Your task to perform on an android device: clear all cookies in the chrome app Image 0: 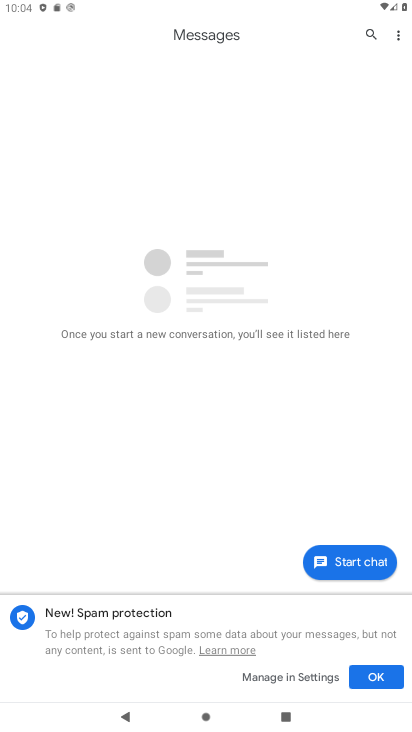
Step 0: drag from (201, 530) to (231, 299)
Your task to perform on an android device: clear all cookies in the chrome app Image 1: 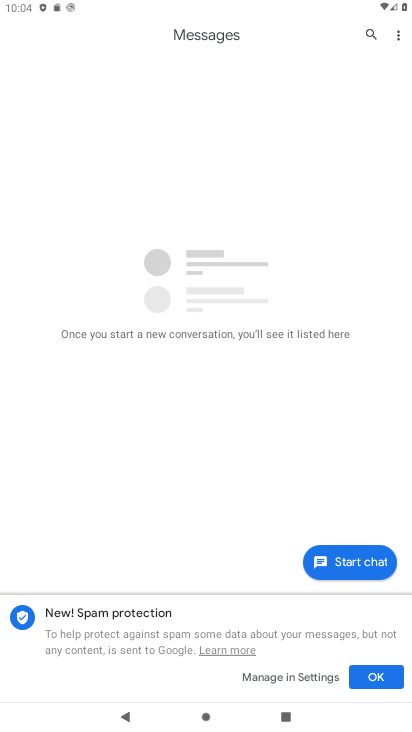
Step 1: drag from (230, 529) to (242, 321)
Your task to perform on an android device: clear all cookies in the chrome app Image 2: 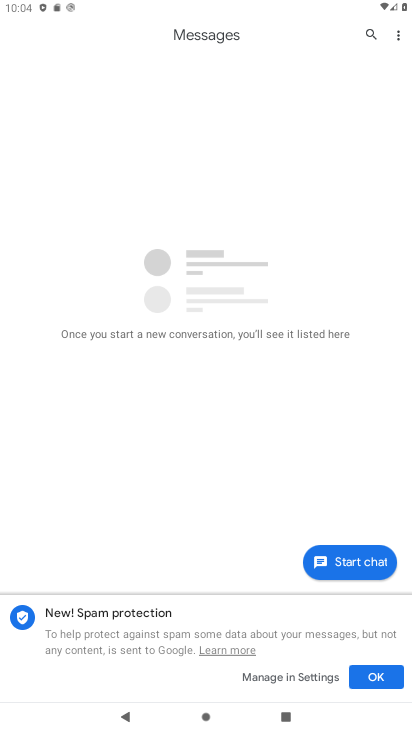
Step 2: press home button
Your task to perform on an android device: clear all cookies in the chrome app Image 3: 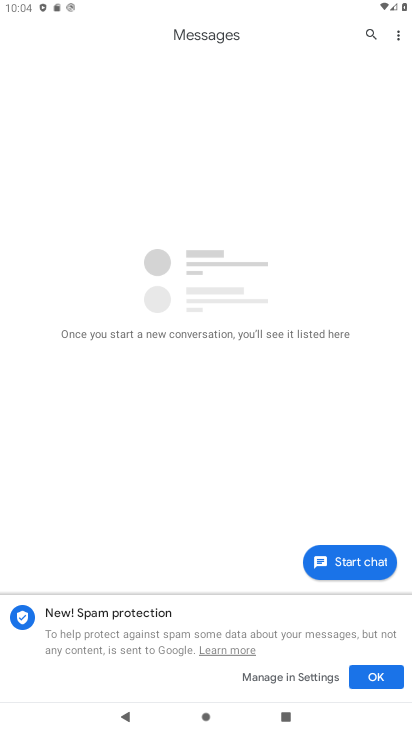
Step 3: press home button
Your task to perform on an android device: clear all cookies in the chrome app Image 4: 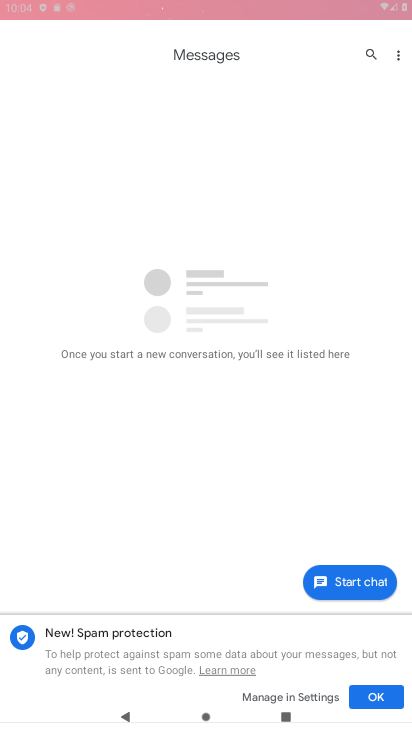
Step 4: click (387, 145)
Your task to perform on an android device: clear all cookies in the chrome app Image 5: 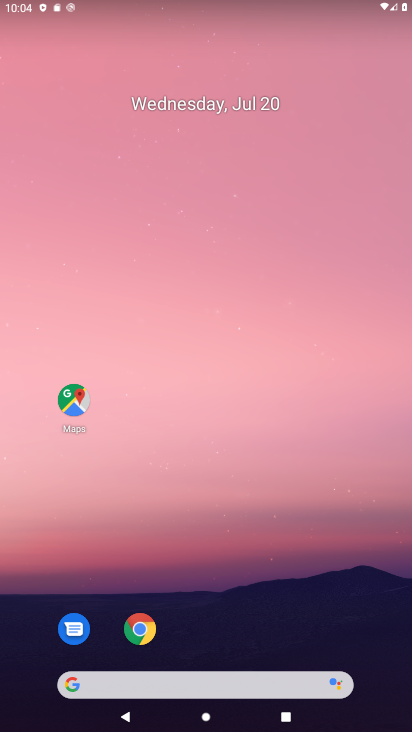
Step 5: drag from (199, 636) to (299, 232)
Your task to perform on an android device: clear all cookies in the chrome app Image 6: 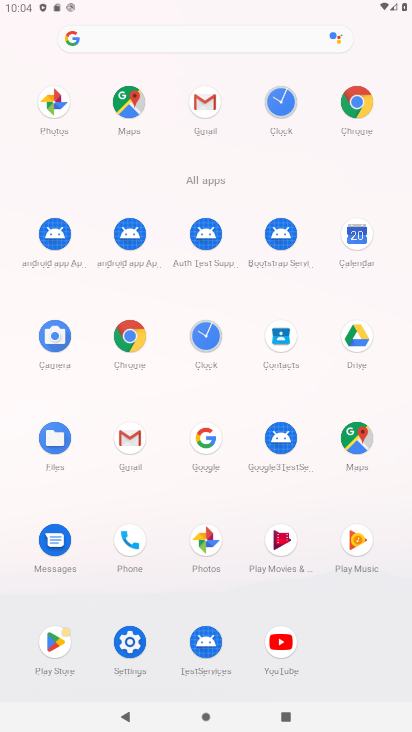
Step 6: click (135, 339)
Your task to perform on an android device: clear all cookies in the chrome app Image 7: 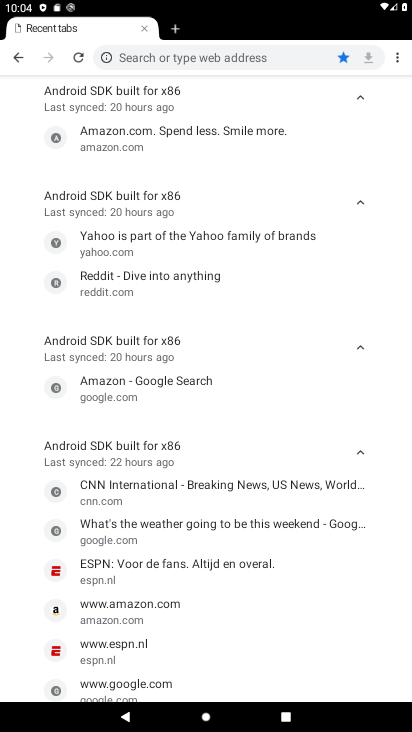
Step 7: drag from (233, 164) to (207, 348)
Your task to perform on an android device: clear all cookies in the chrome app Image 8: 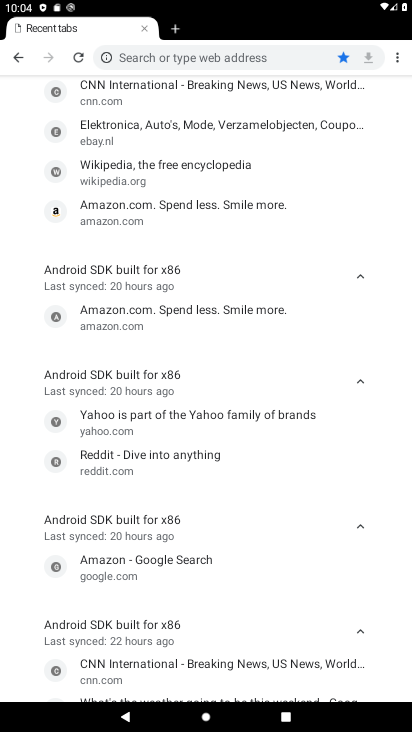
Step 8: drag from (232, 257) to (235, 620)
Your task to perform on an android device: clear all cookies in the chrome app Image 9: 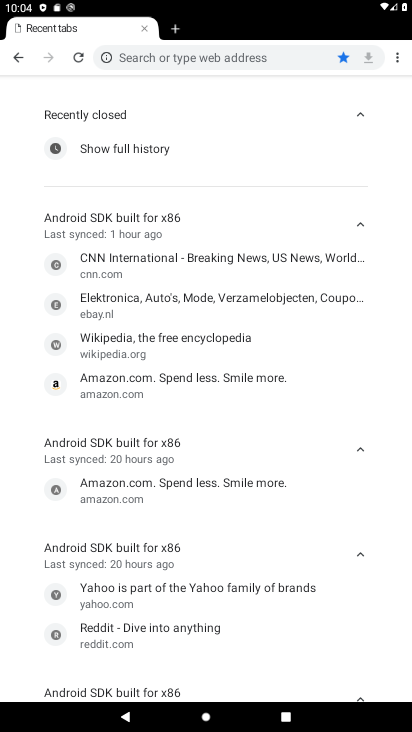
Step 9: drag from (398, 55) to (288, 183)
Your task to perform on an android device: clear all cookies in the chrome app Image 10: 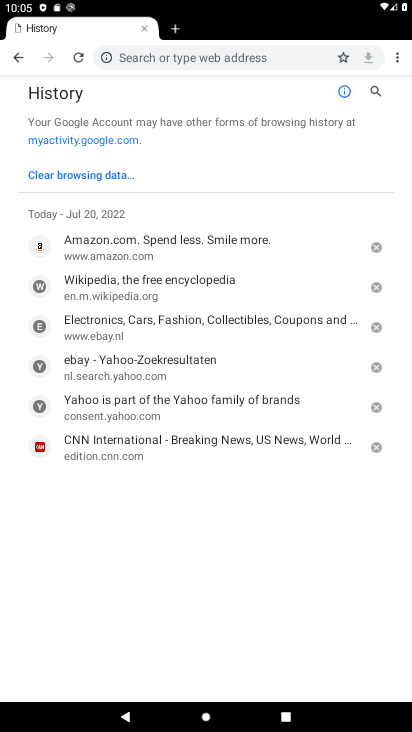
Step 10: click (38, 183)
Your task to perform on an android device: clear all cookies in the chrome app Image 11: 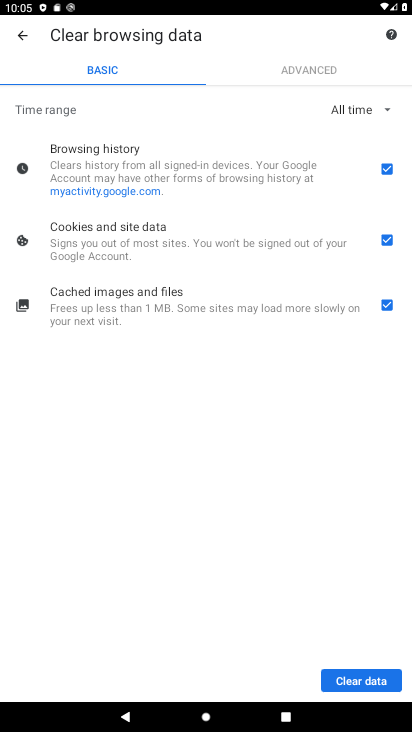
Step 11: click (381, 171)
Your task to perform on an android device: clear all cookies in the chrome app Image 12: 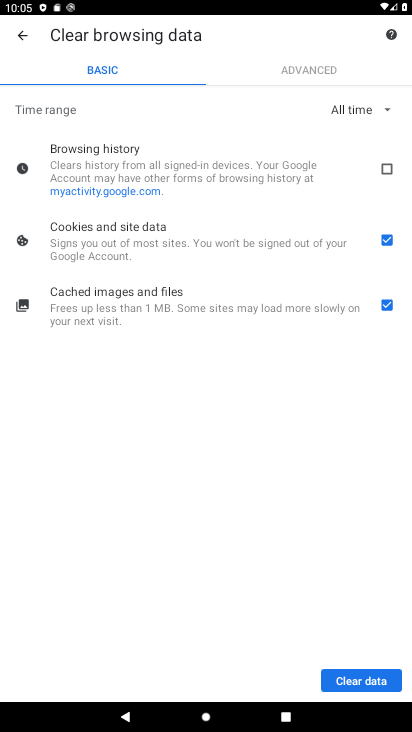
Step 12: click (379, 305)
Your task to perform on an android device: clear all cookies in the chrome app Image 13: 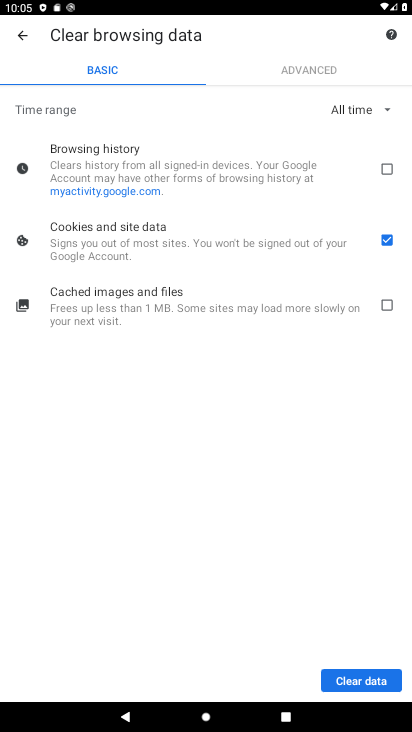
Step 13: click (354, 681)
Your task to perform on an android device: clear all cookies in the chrome app Image 14: 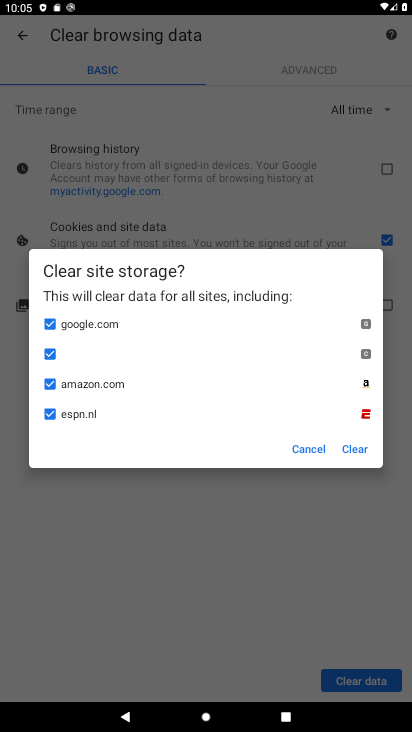
Step 14: click (362, 450)
Your task to perform on an android device: clear all cookies in the chrome app Image 15: 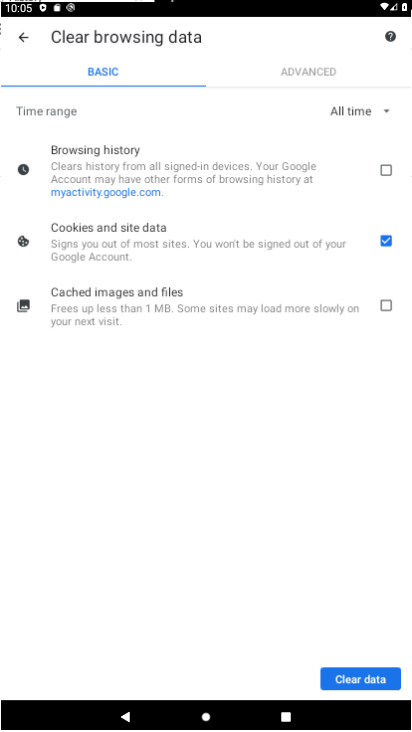
Step 15: task complete